Your task to perform on an android device: change the clock display to analog Image 0: 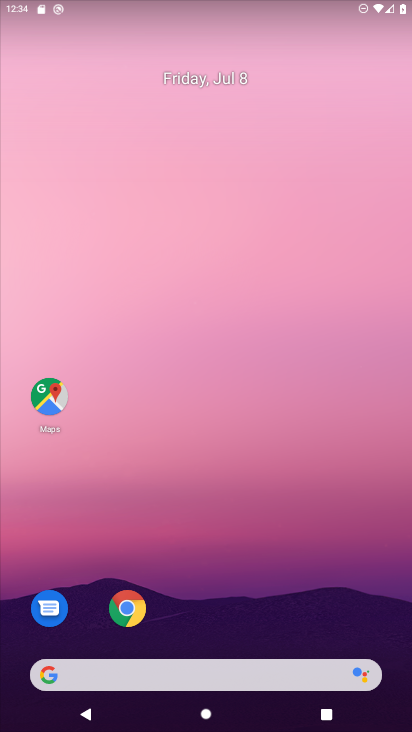
Step 0: drag from (250, 729) to (224, 234)
Your task to perform on an android device: change the clock display to analog Image 1: 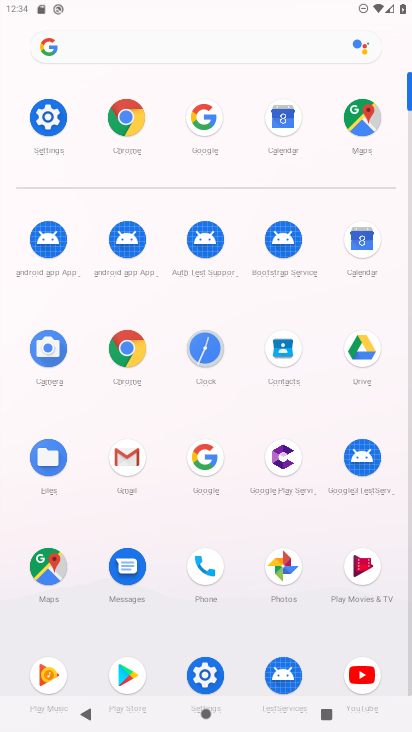
Step 1: click (204, 348)
Your task to perform on an android device: change the clock display to analog Image 2: 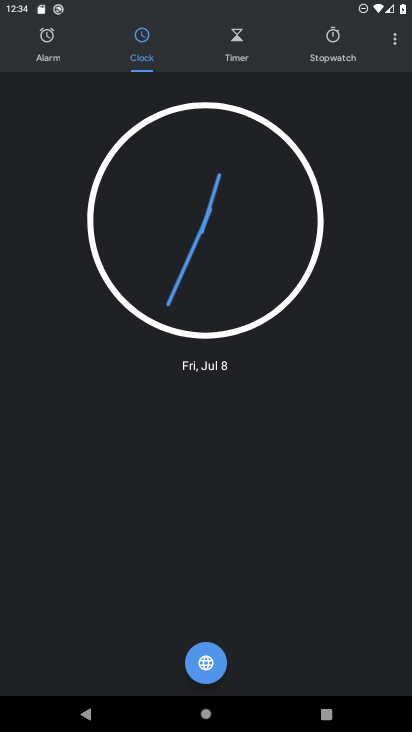
Step 2: click (397, 40)
Your task to perform on an android device: change the clock display to analog Image 3: 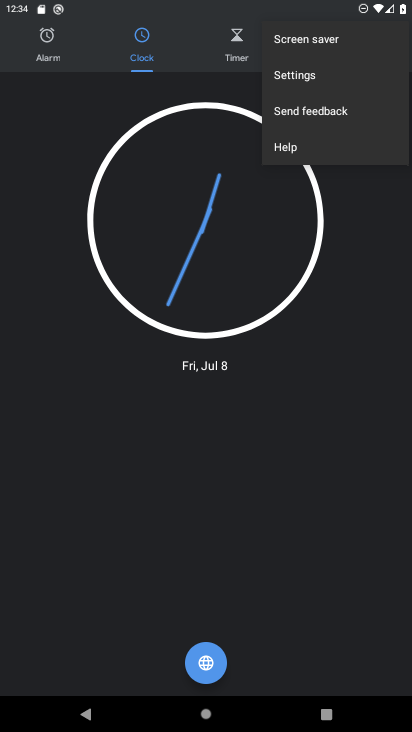
Step 3: click (299, 73)
Your task to perform on an android device: change the clock display to analog Image 4: 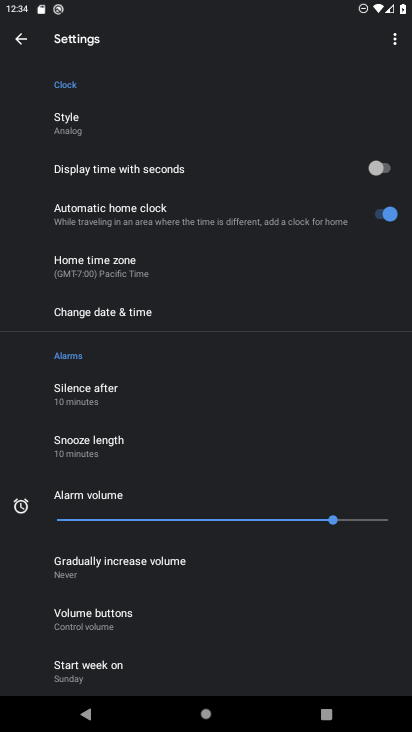
Step 4: task complete